Your task to perform on an android device: Open the calendar app, open the side menu, and click the "Day" option Image 0: 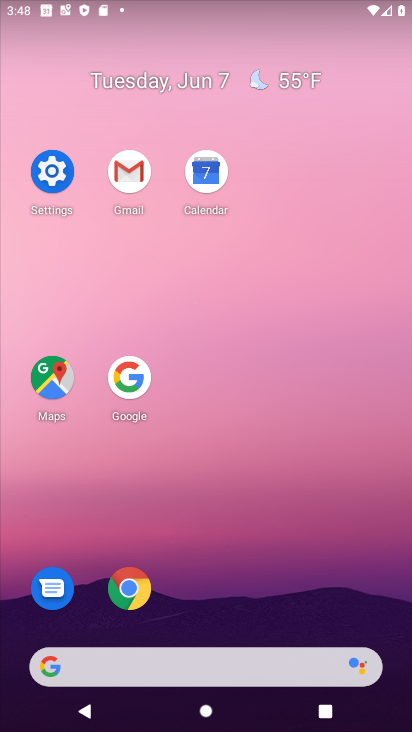
Step 0: click (201, 173)
Your task to perform on an android device: Open the calendar app, open the side menu, and click the "Day" option Image 1: 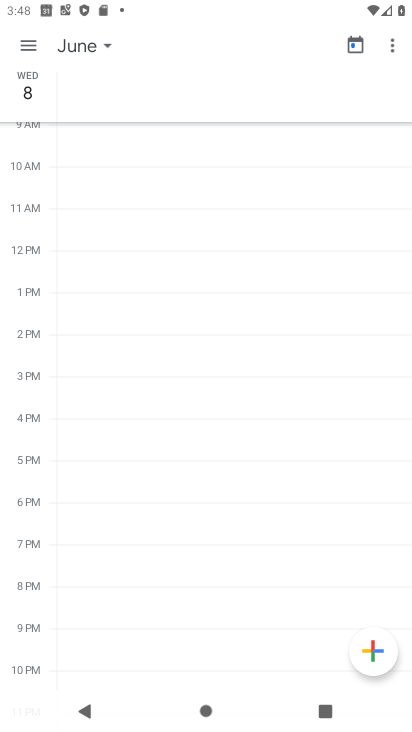
Step 1: click (31, 37)
Your task to perform on an android device: Open the calendar app, open the side menu, and click the "Day" option Image 2: 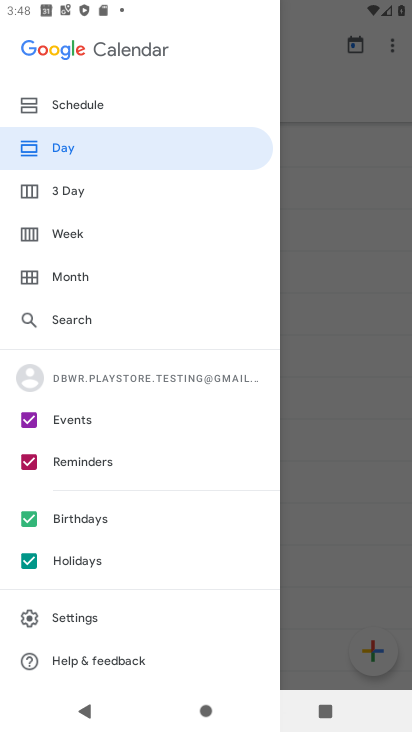
Step 2: click (114, 150)
Your task to perform on an android device: Open the calendar app, open the side menu, and click the "Day" option Image 3: 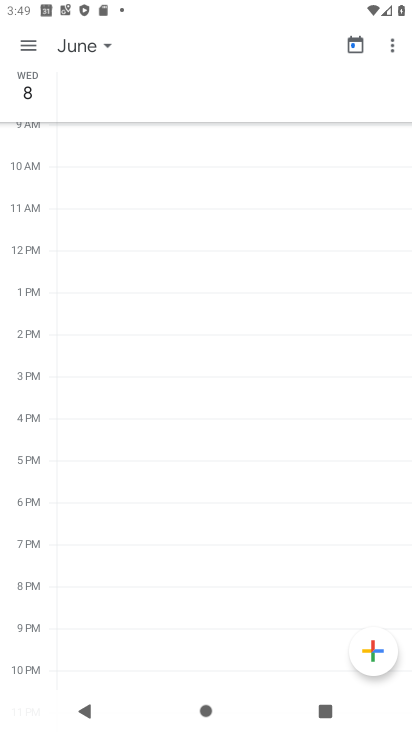
Step 3: task complete